Your task to perform on an android device: When is my next meeting? Image 0: 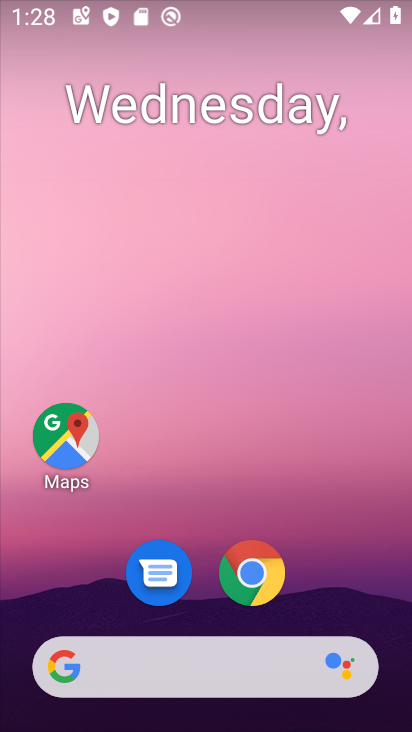
Step 0: drag from (195, 547) to (188, 154)
Your task to perform on an android device: When is my next meeting? Image 1: 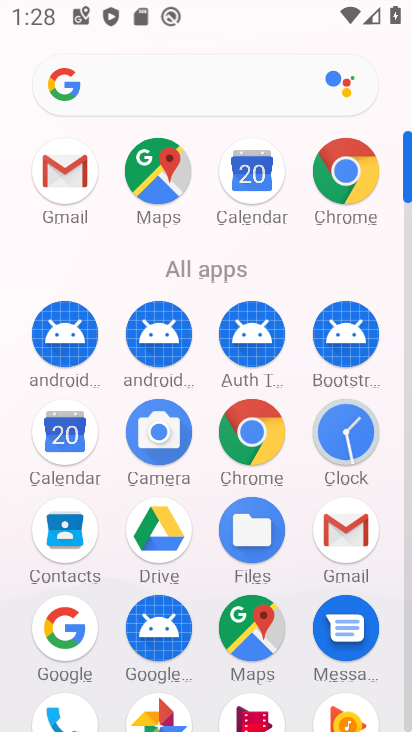
Step 1: click (56, 446)
Your task to perform on an android device: When is my next meeting? Image 2: 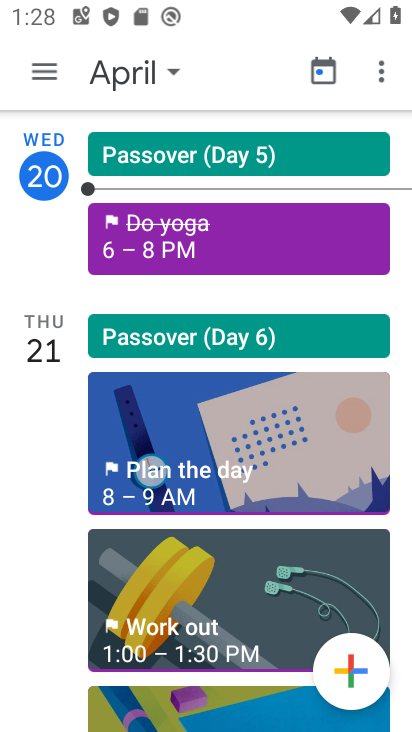
Step 2: click (171, 70)
Your task to perform on an android device: When is my next meeting? Image 3: 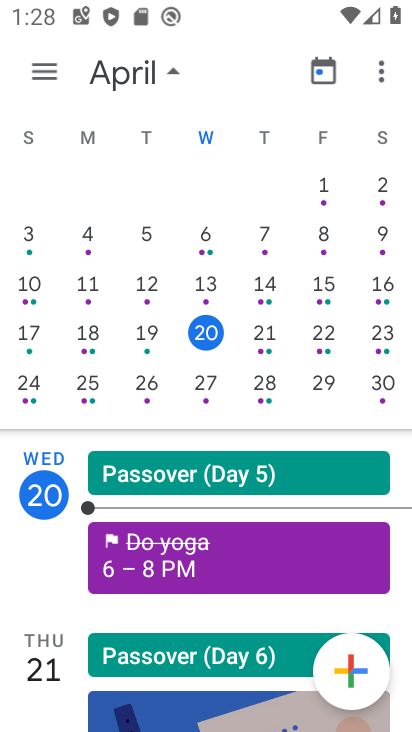
Step 3: click (267, 333)
Your task to perform on an android device: When is my next meeting? Image 4: 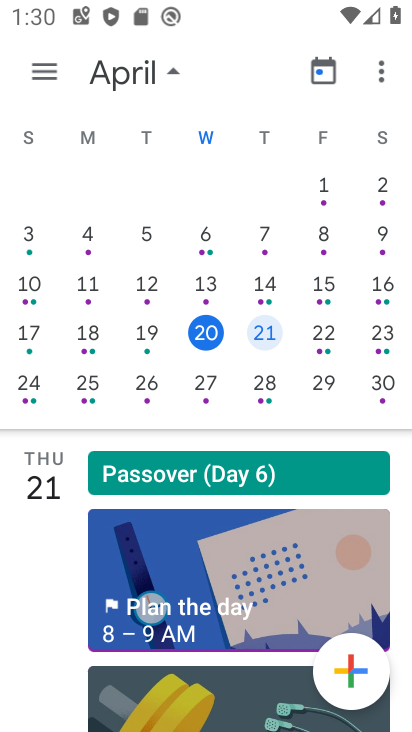
Step 4: task complete